Your task to perform on an android device: manage bookmarks in the chrome app Image 0: 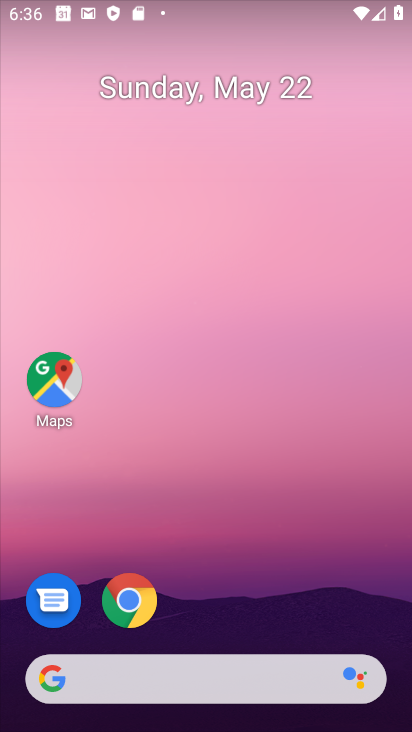
Step 0: drag from (358, 617) to (213, 111)
Your task to perform on an android device: manage bookmarks in the chrome app Image 1: 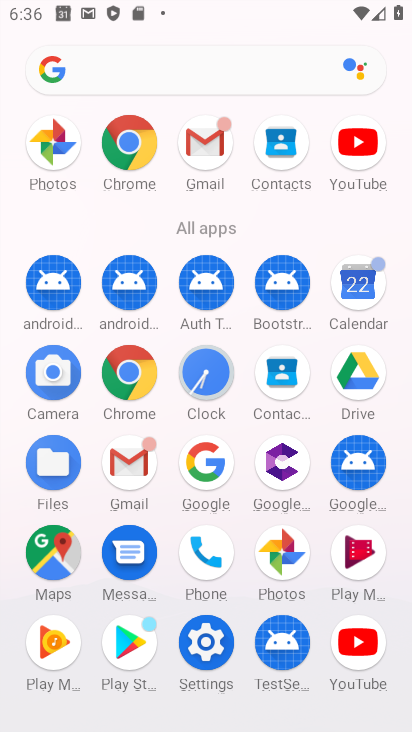
Step 1: click (133, 142)
Your task to perform on an android device: manage bookmarks in the chrome app Image 2: 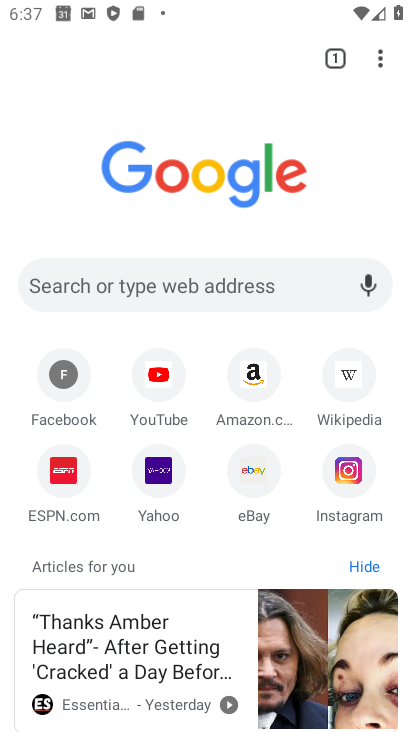
Step 2: task complete